Your task to perform on an android device: Search for bose soundlink on walmart.com, select the first entry, add it to the cart, then select checkout. Image 0: 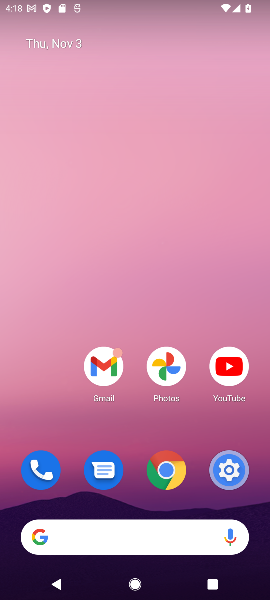
Step 0: click (105, 542)
Your task to perform on an android device: Search for bose soundlink on walmart.com, select the first entry, add it to the cart, then select checkout. Image 1: 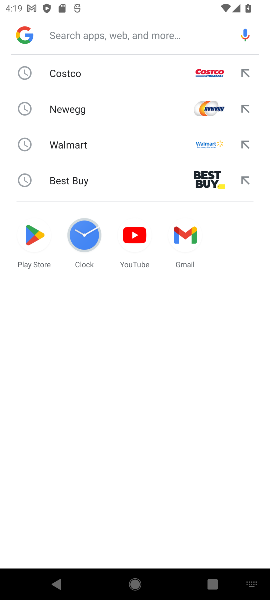
Step 1: type "walmart.com"
Your task to perform on an android device: Search for bose soundlink on walmart.com, select the first entry, add it to the cart, then select checkout. Image 2: 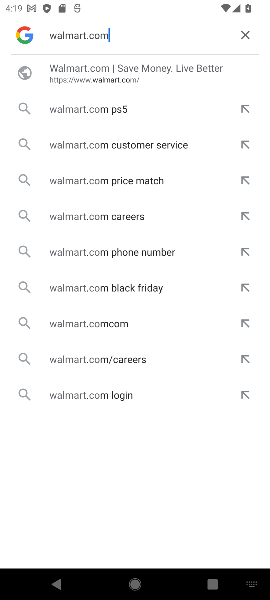
Step 2: type ""
Your task to perform on an android device: Search for bose soundlink on walmart.com, select the first entry, add it to the cart, then select checkout. Image 3: 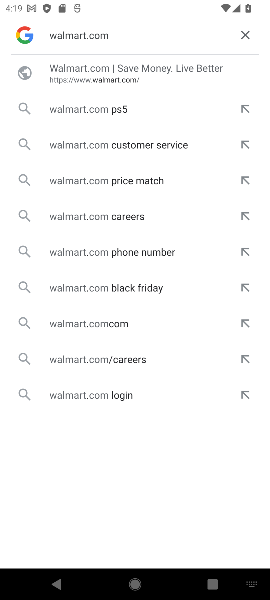
Step 3: press enter
Your task to perform on an android device: Search for bose soundlink on walmart.com, select the first entry, add it to the cart, then select checkout. Image 4: 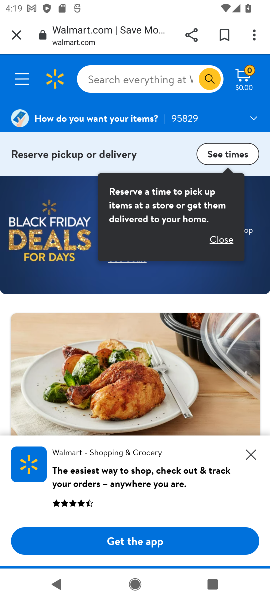
Step 4: click (108, 84)
Your task to perform on an android device: Search for bose soundlink on walmart.com, select the first entry, add it to the cart, then select checkout. Image 5: 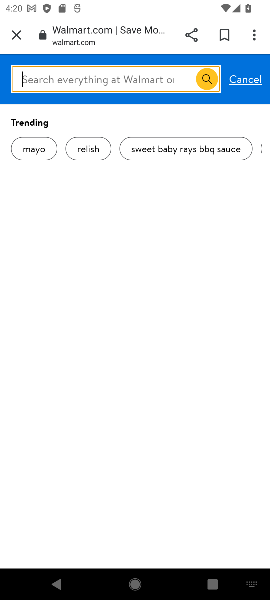
Step 5: type "bose soundlink"
Your task to perform on an android device: Search for bose soundlink on walmart.com, select the first entry, add it to the cart, then select checkout. Image 6: 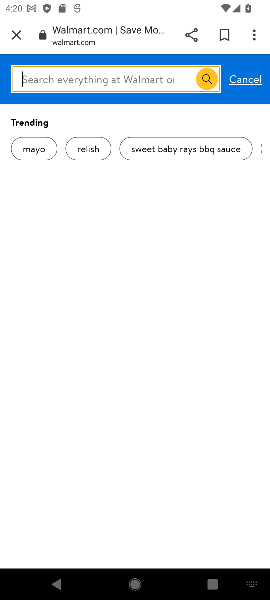
Step 6: type ""
Your task to perform on an android device: Search for bose soundlink on walmart.com, select the first entry, add it to the cart, then select checkout. Image 7: 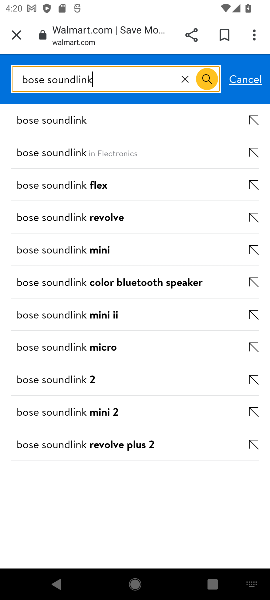
Step 7: press enter
Your task to perform on an android device: Search for bose soundlink on walmart.com, select the first entry, add it to the cart, then select checkout. Image 8: 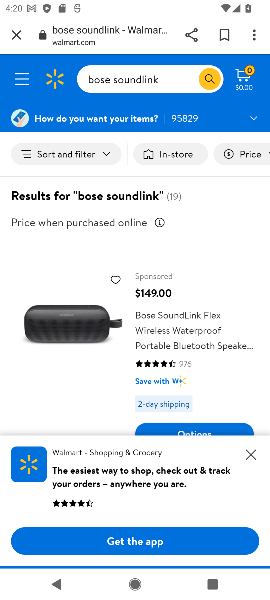
Step 8: press enter
Your task to perform on an android device: Search for bose soundlink on walmart.com, select the first entry, add it to the cart, then select checkout. Image 9: 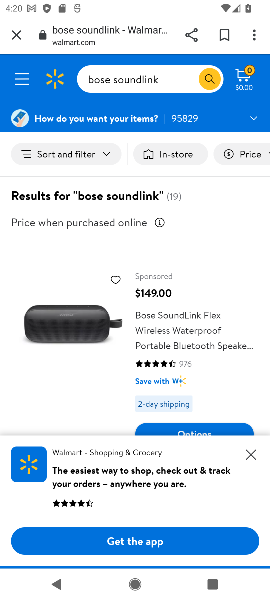
Step 9: click (206, 82)
Your task to perform on an android device: Search for bose soundlink on walmart.com, select the first entry, add it to the cart, then select checkout. Image 10: 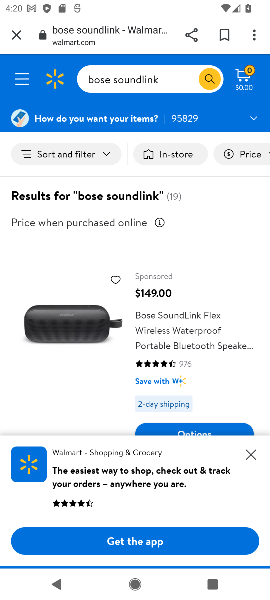
Step 10: click (250, 458)
Your task to perform on an android device: Search for bose soundlink on walmart.com, select the first entry, add it to the cart, then select checkout. Image 11: 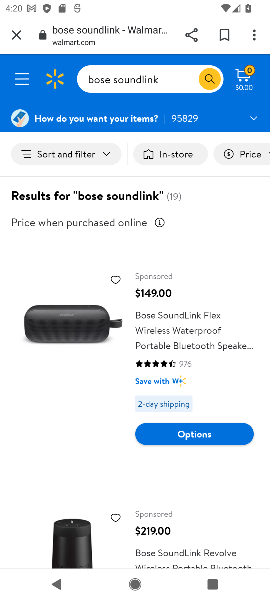
Step 11: click (237, 434)
Your task to perform on an android device: Search for bose soundlink on walmart.com, select the first entry, add it to the cart, then select checkout. Image 12: 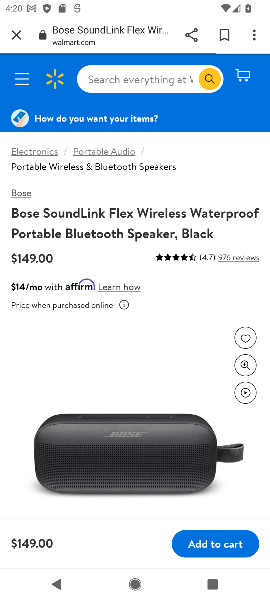
Step 12: click (230, 541)
Your task to perform on an android device: Search for bose soundlink on walmart.com, select the first entry, add it to the cart, then select checkout. Image 13: 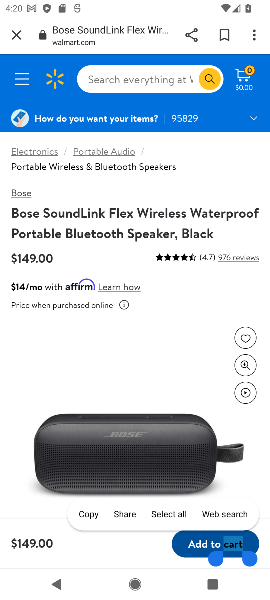
Step 13: click (211, 545)
Your task to perform on an android device: Search for bose soundlink on walmart.com, select the first entry, add it to the cart, then select checkout. Image 14: 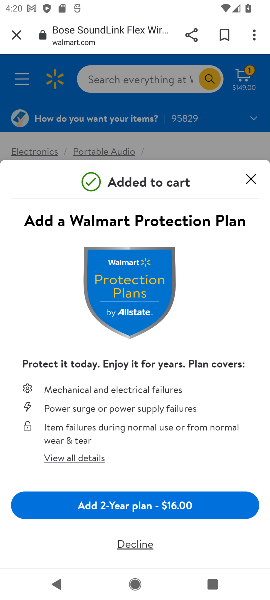
Step 14: click (251, 182)
Your task to perform on an android device: Search for bose soundlink on walmart.com, select the first entry, add it to the cart, then select checkout. Image 15: 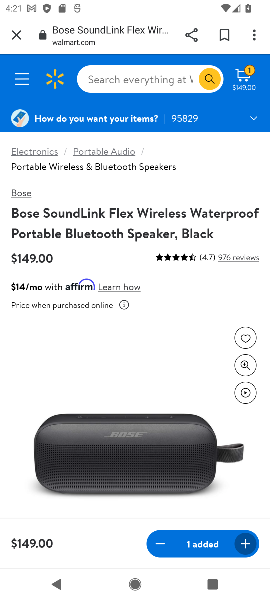
Step 15: click (244, 81)
Your task to perform on an android device: Search for bose soundlink on walmart.com, select the first entry, add it to the cart, then select checkout. Image 16: 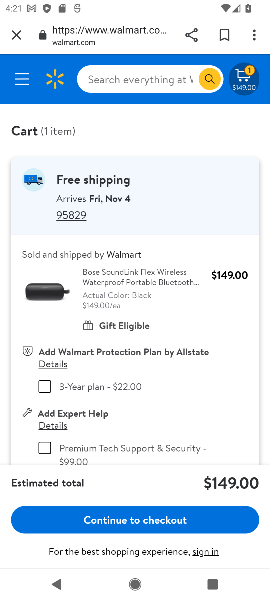
Step 16: click (118, 519)
Your task to perform on an android device: Search for bose soundlink on walmart.com, select the first entry, add it to the cart, then select checkout. Image 17: 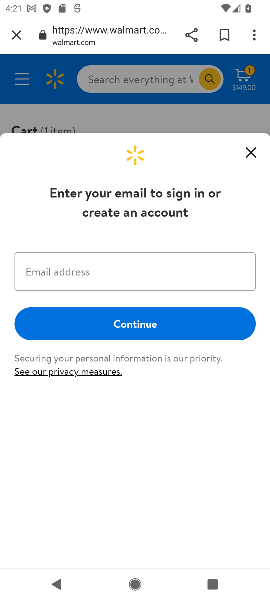
Step 17: task complete